Your task to perform on an android device: Add "logitech g pro" to the cart on walmart Image 0: 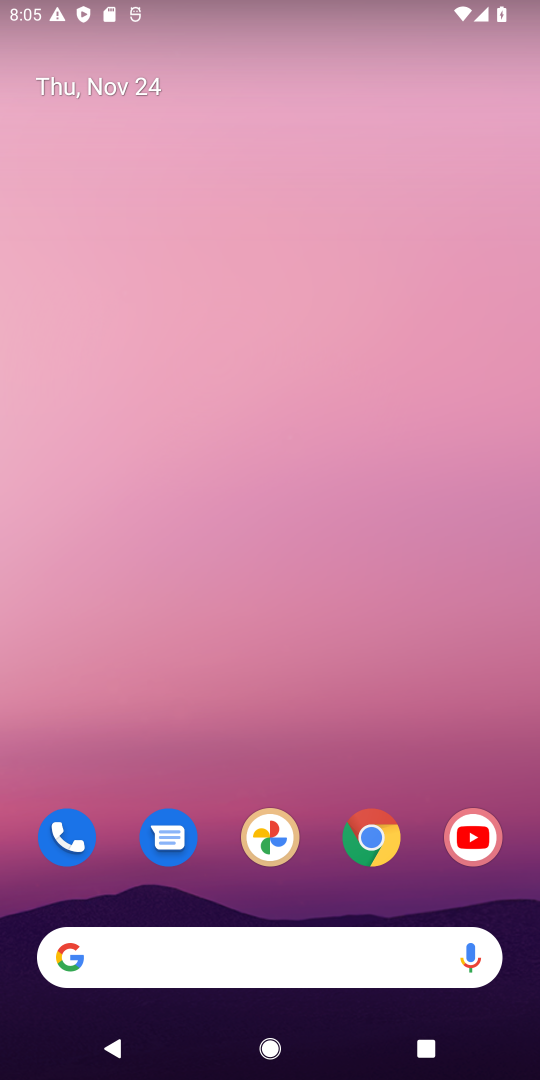
Step 0: click (383, 832)
Your task to perform on an android device: Add "logitech g pro" to the cart on walmart Image 1: 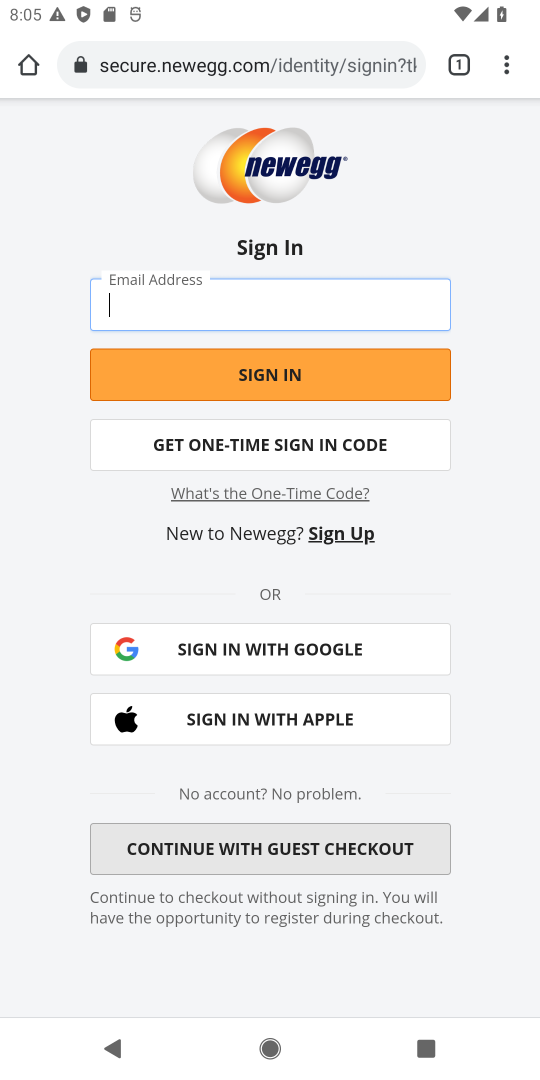
Step 1: click (299, 54)
Your task to perform on an android device: Add "logitech g pro" to the cart on walmart Image 2: 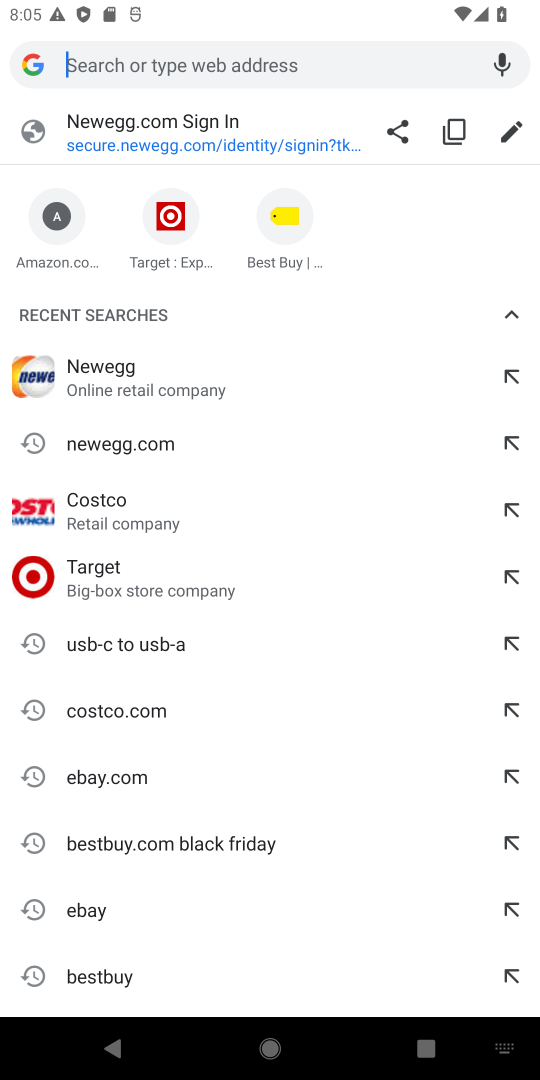
Step 2: type "walmart"
Your task to perform on an android device: Add "logitech g pro" to the cart on walmart Image 3: 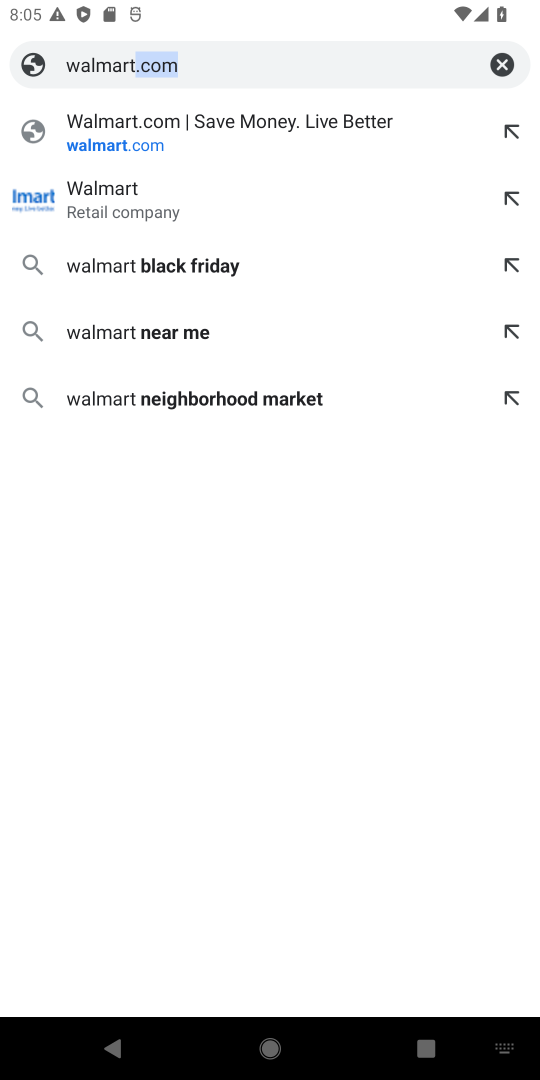
Step 3: click (267, 151)
Your task to perform on an android device: Add "logitech g pro" to the cart on walmart Image 4: 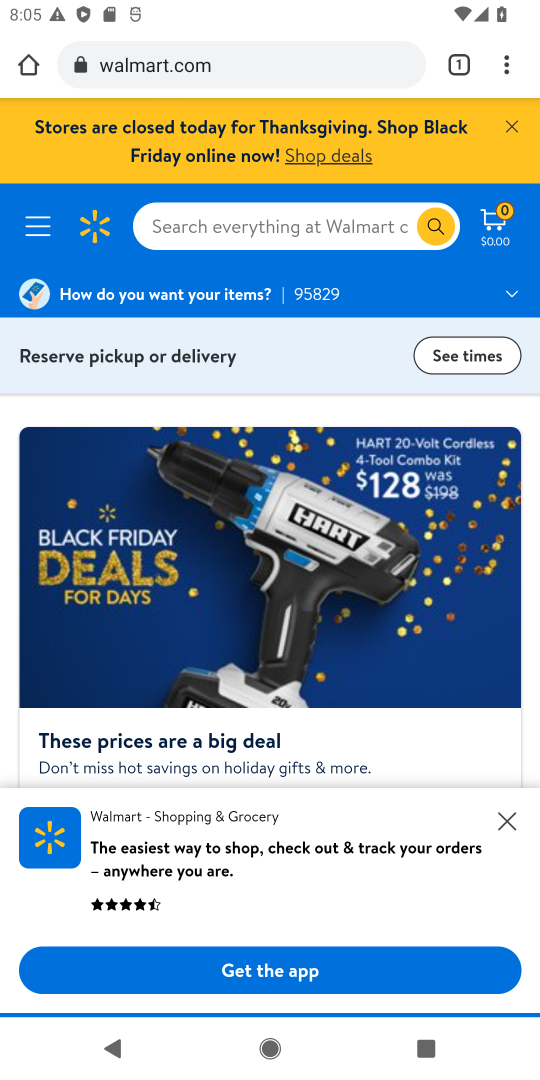
Step 4: click (257, 228)
Your task to perform on an android device: Add "logitech g pro" to the cart on walmart Image 5: 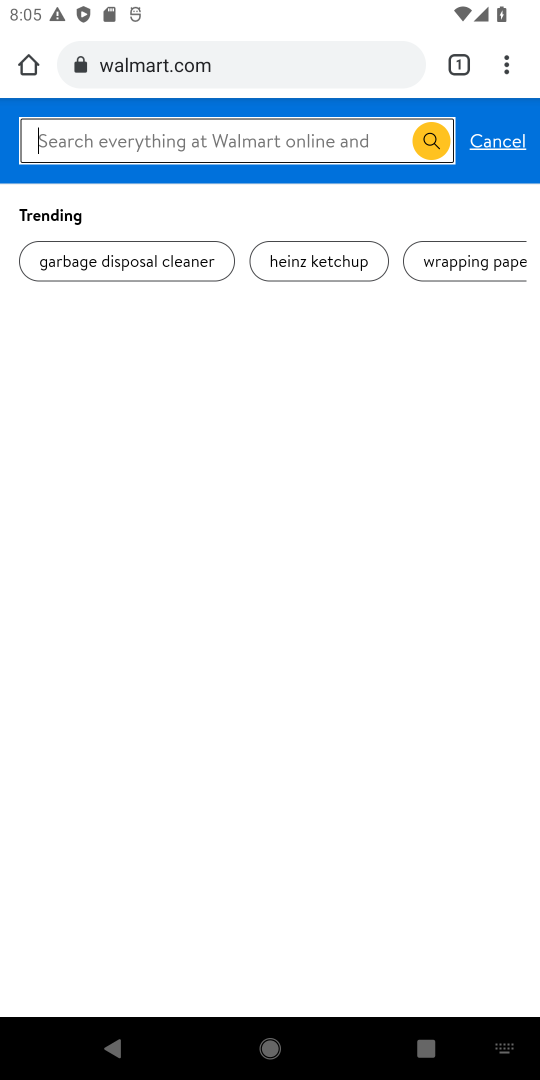
Step 5: type "logitech g pro"
Your task to perform on an android device: Add "logitech g pro" to the cart on walmart Image 6: 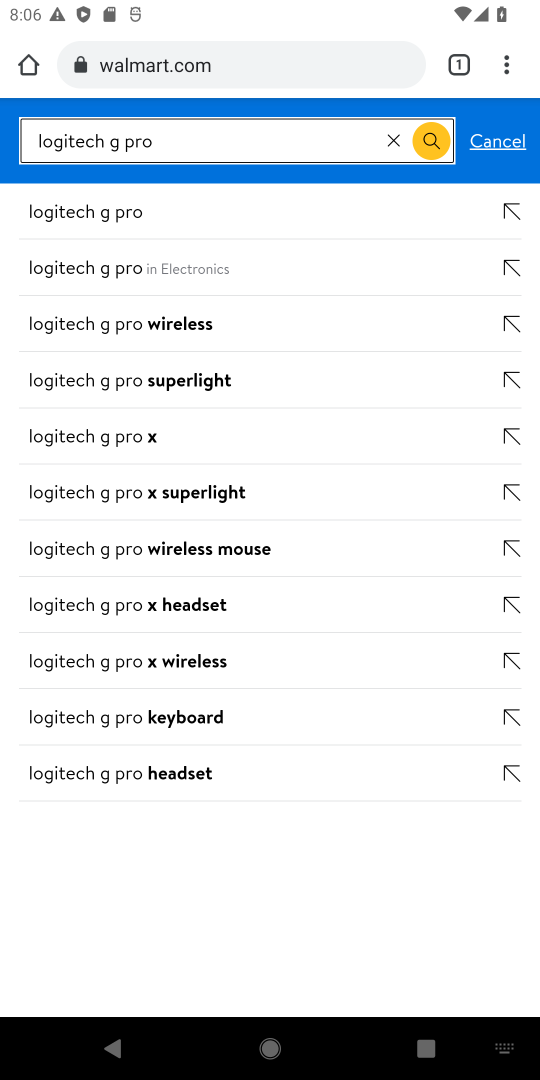
Step 6: click (121, 201)
Your task to perform on an android device: Add "logitech g pro" to the cart on walmart Image 7: 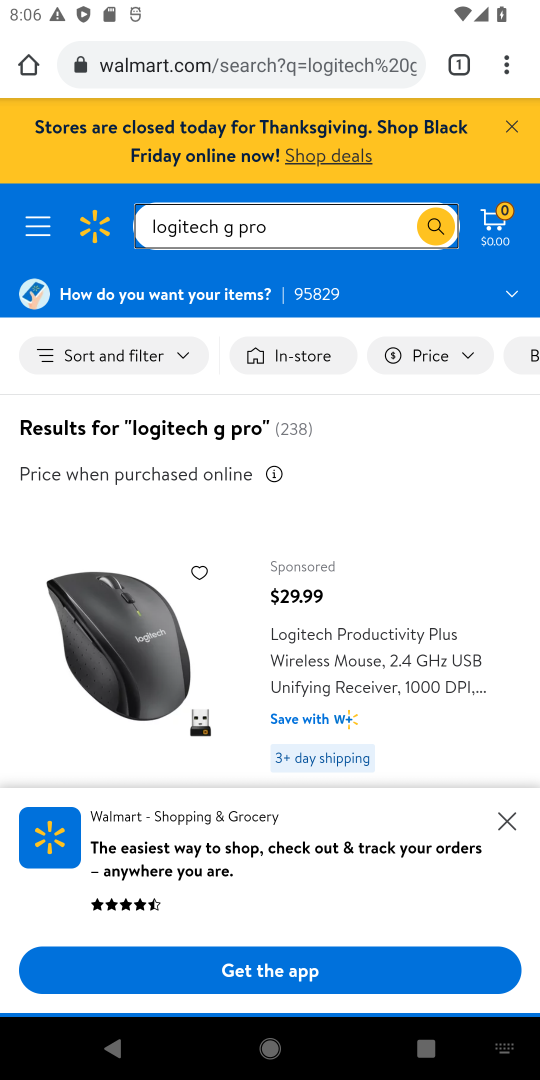
Step 7: click (509, 816)
Your task to perform on an android device: Add "logitech g pro" to the cart on walmart Image 8: 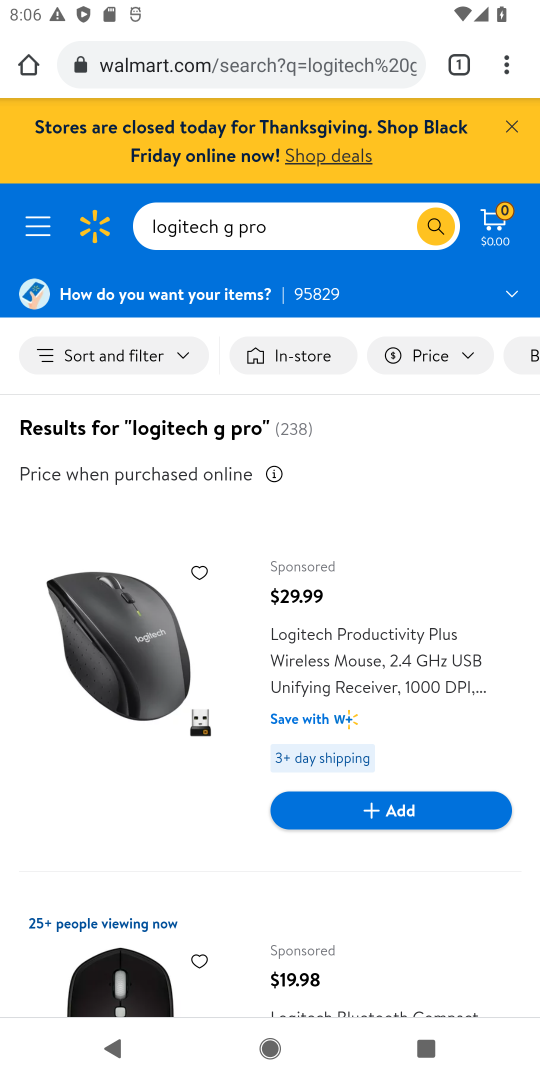
Step 8: click (421, 816)
Your task to perform on an android device: Add "logitech g pro" to the cart on walmart Image 9: 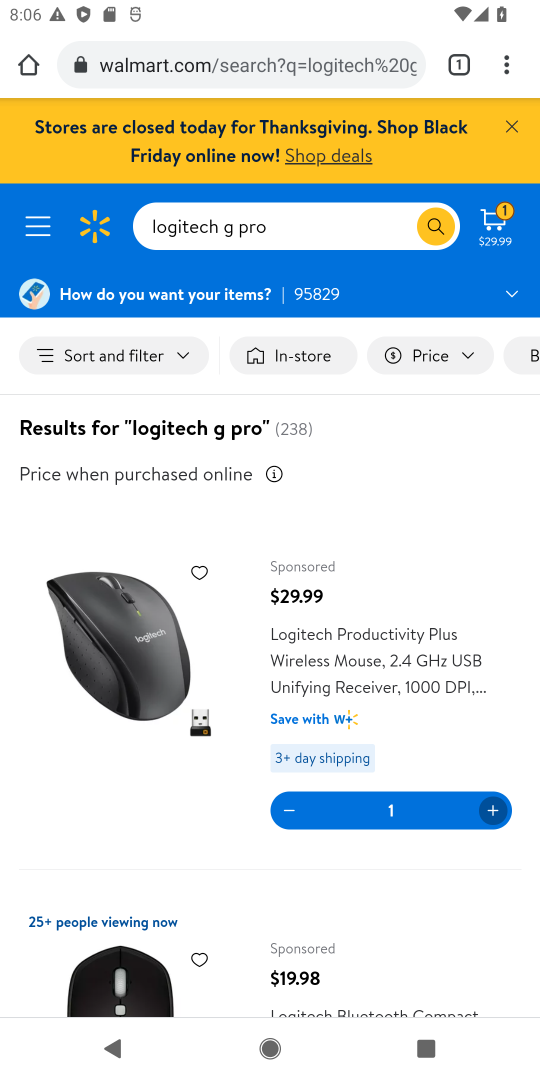
Step 9: task complete